Your task to perform on an android device: Go to Reddit.com Image 0: 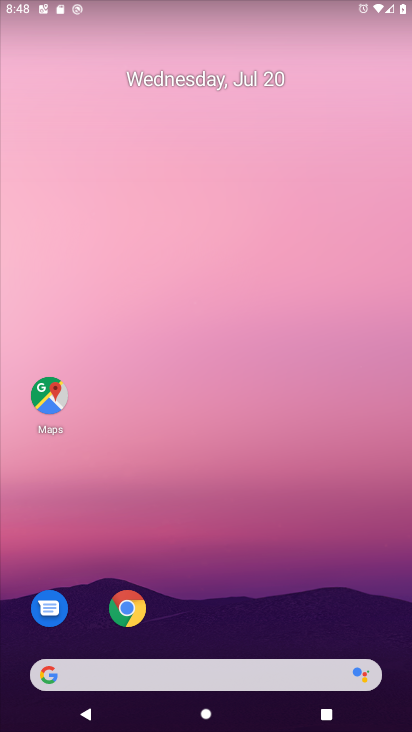
Step 0: drag from (189, 584) to (167, 253)
Your task to perform on an android device: Go to Reddit.com Image 1: 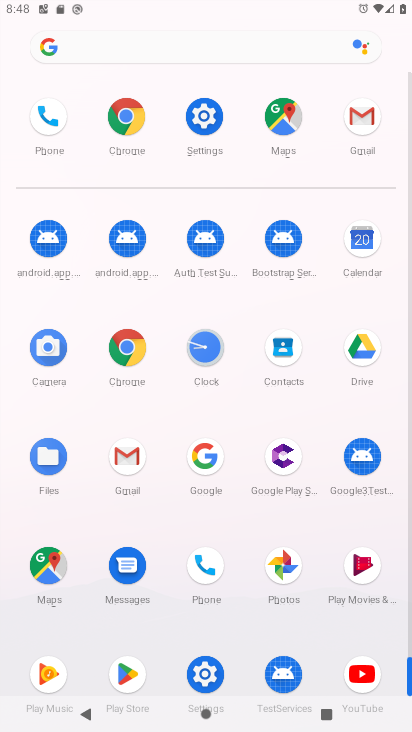
Step 1: click (137, 111)
Your task to perform on an android device: Go to Reddit.com Image 2: 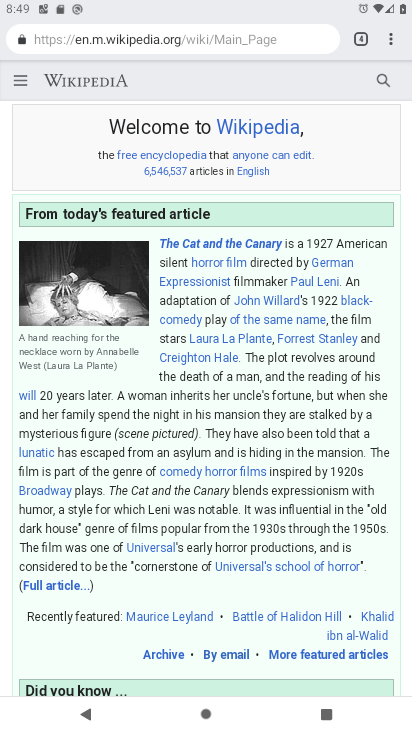
Step 2: click (398, 40)
Your task to perform on an android device: Go to Reddit.com Image 3: 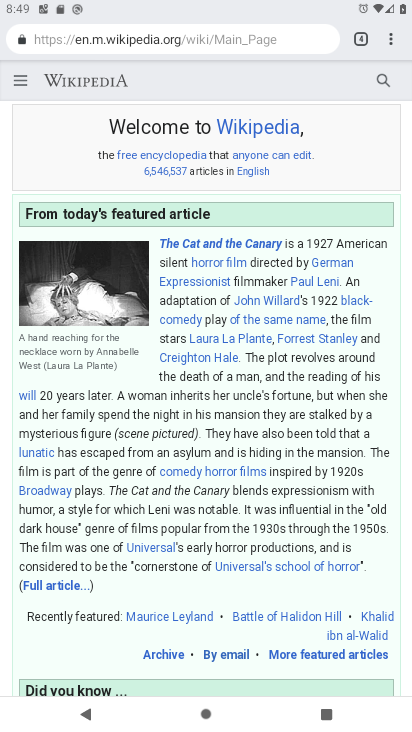
Step 3: click (401, 31)
Your task to perform on an android device: Go to Reddit.com Image 4: 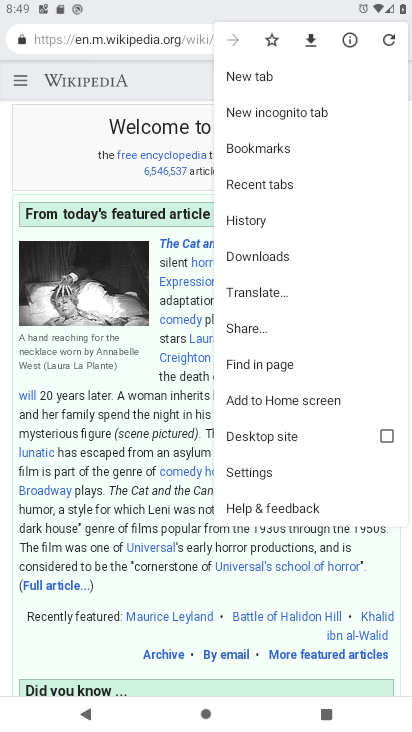
Step 4: click (260, 78)
Your task to perform on an android device: Go to Reddit.com Image 5: 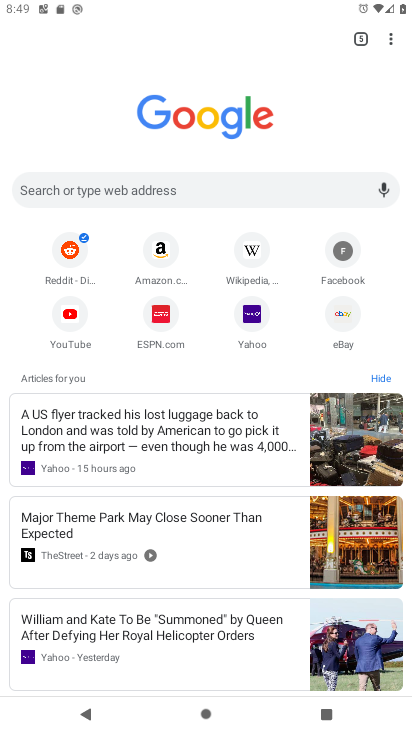
Step 5: click (84, 260)
Your task to perform on an android device: Go to Reddit.com Image 6: 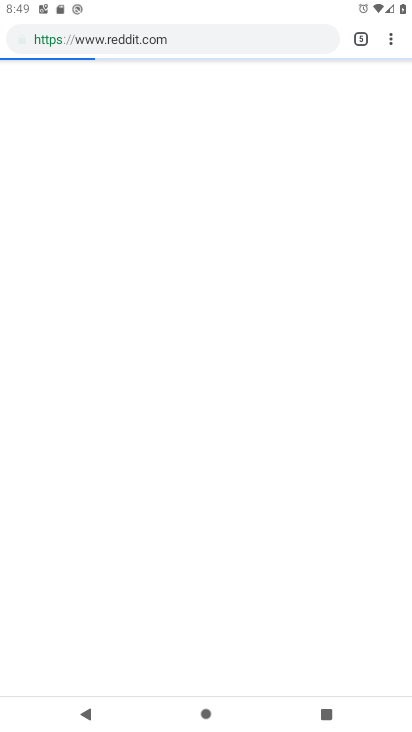
Step 6: task complete